Your task to perform on an android device: turn on translation in the chrome app Image 0: 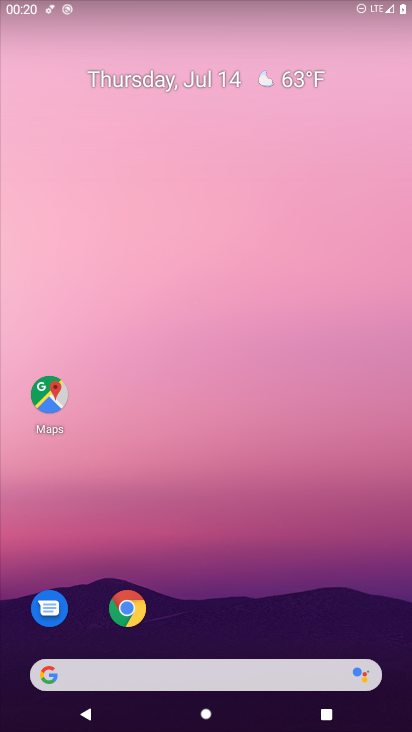
Step 0: press home button
Your task to perform on an android device: turn on translation in the chrome app Image 1: 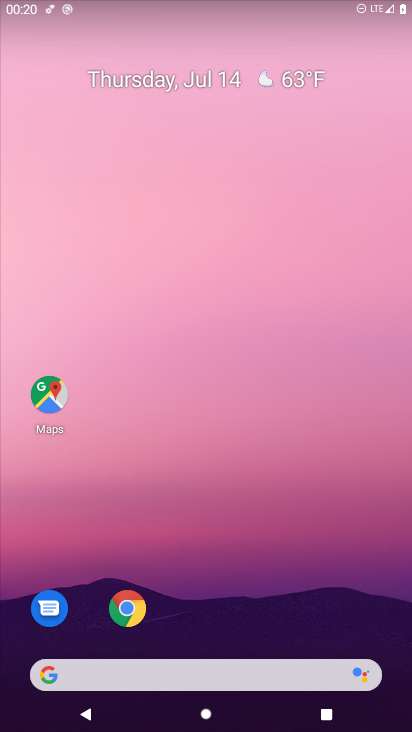
Step 1: press home button
Your task to perform on an android device: turn on translation in the chrome app Image 2: 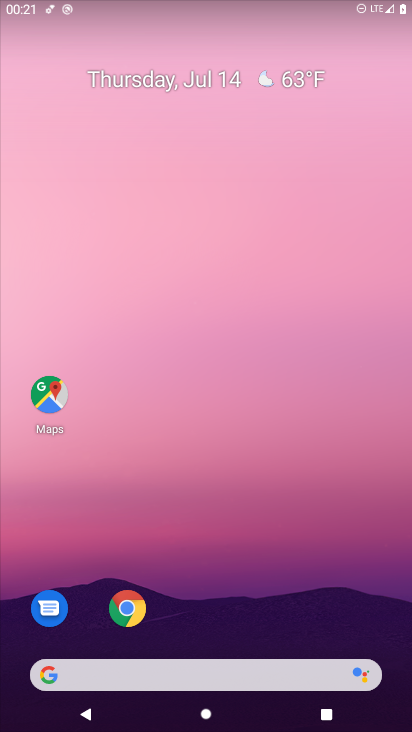
Step 2: drag from (214, 633) to (209, 194)
Your task to perform on an android device: turn on translation in the chrome app Image 3: 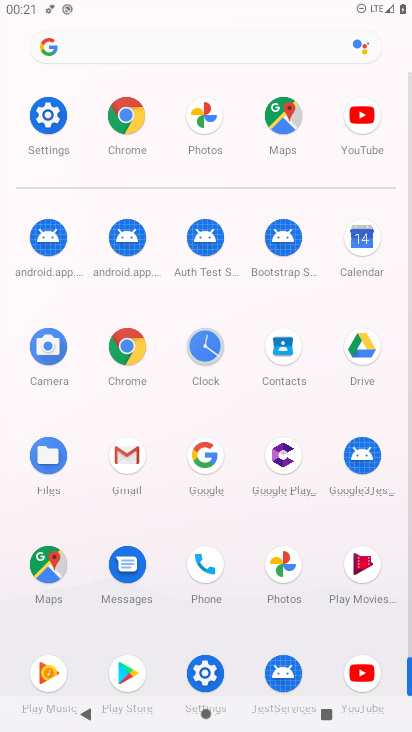
Step 3: press home button
Your task to perform on an android device: turn on translation in the chrome app Image 4: 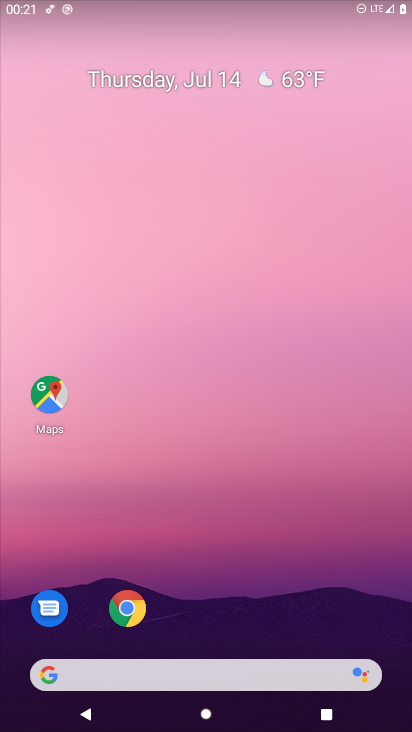
Step 4: drag from (246, 628) to (270, 40)
Your task to perform on an android device: turn on translation in the chrome app Image 5: 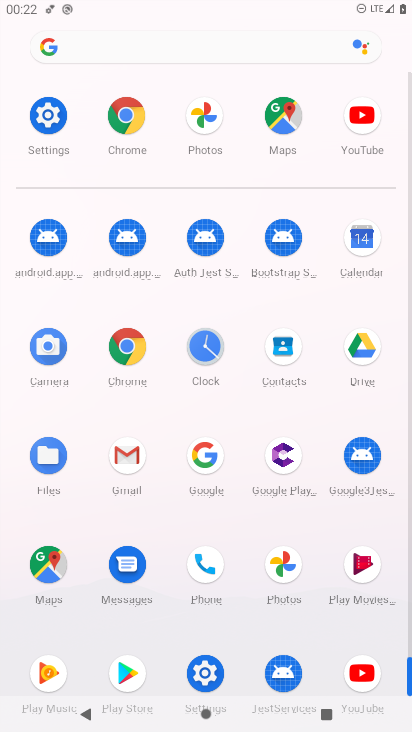
Step 5: click (125, 119)
Your task to perform on an android device: turn on translation in the chrome app Image 6: 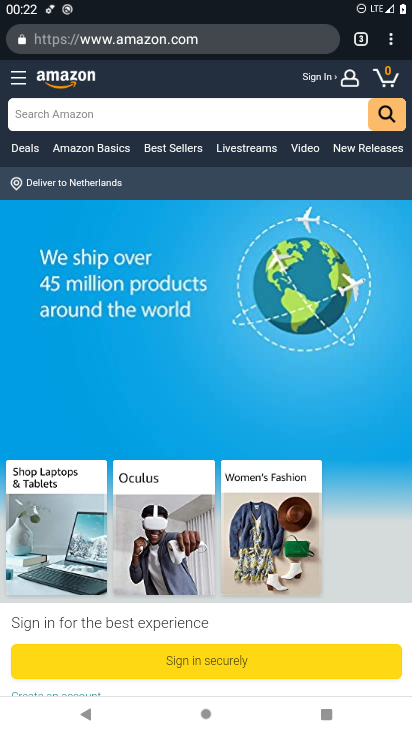
Step 6: drag from (390, 36) to (247, 472)
Your task to perform on an android device: turn on translation in the chrome app Image 7: 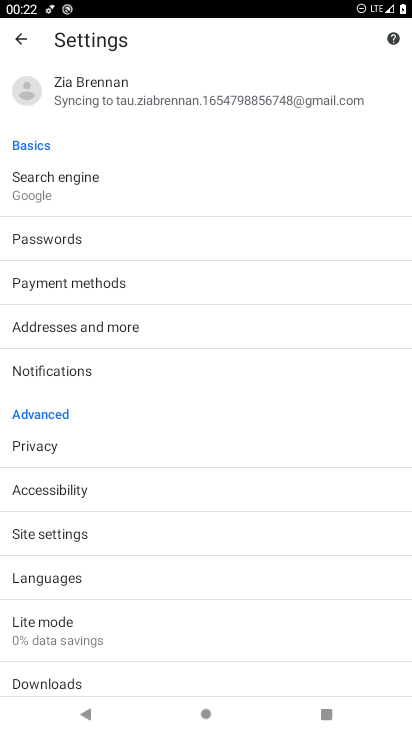
Step 7: drag from (260, 643) to (250, 28)
Your task to perform on an android device: turn on translation in the chrome app Image 8: 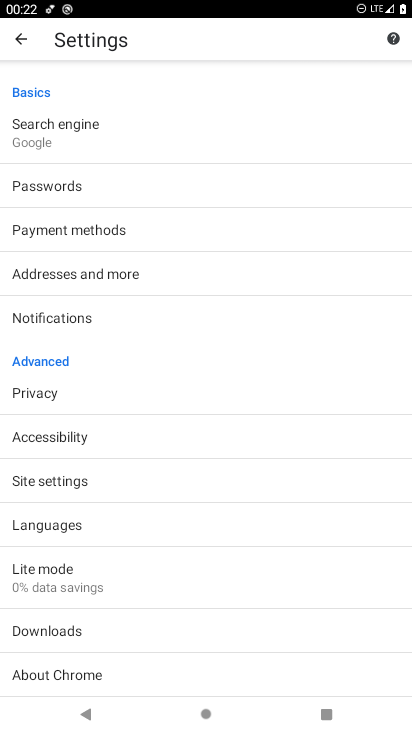
Step 8: drag from (333, 635) to (370, 0)
Your task to perform on an android device: turn on translation in the chrome app Image 9: 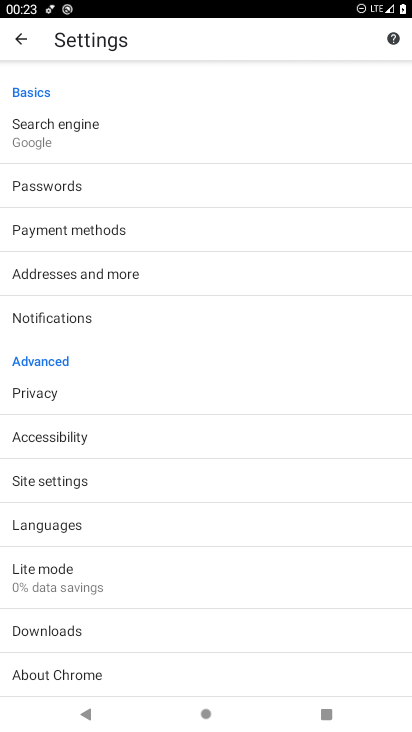
Step 9: click (50, 528)
Your task to perform on an android device: turn on translation in the chrome app Image 10: 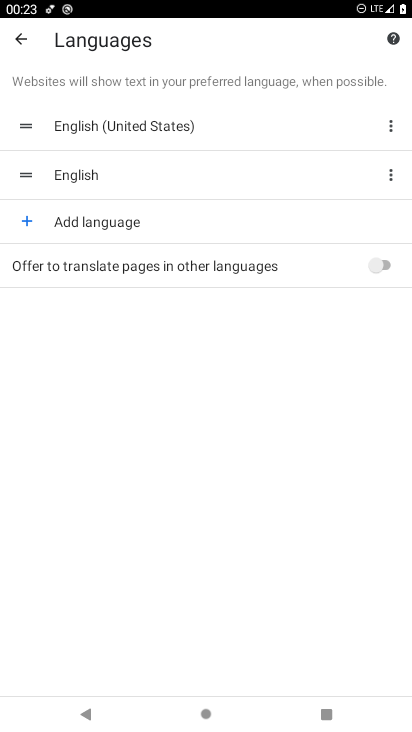
Step 10: click (381, 270)
Your task to perform on an android device: turn on translation in the chrome app Image 11: 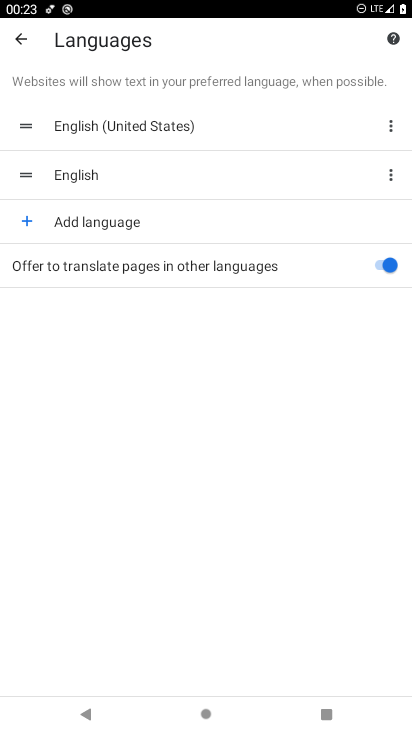
Step 11: task complete